Your task to perform on an android device: Go to calendar. Show me events next week Image 0: 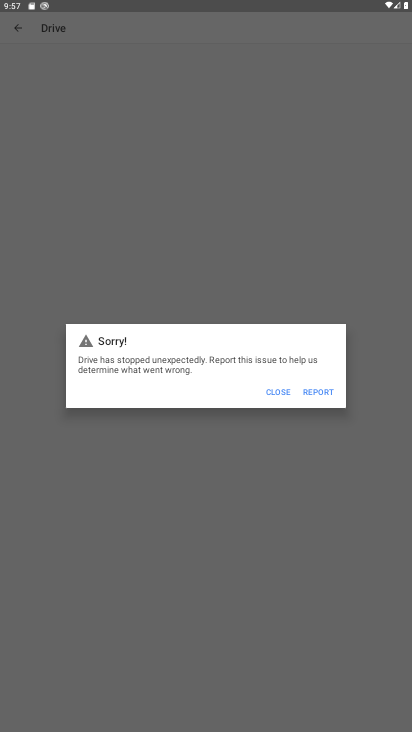
Step 0: press home button
Your task to perform on an android device: Go to calendar. Show me events next week Image 1: 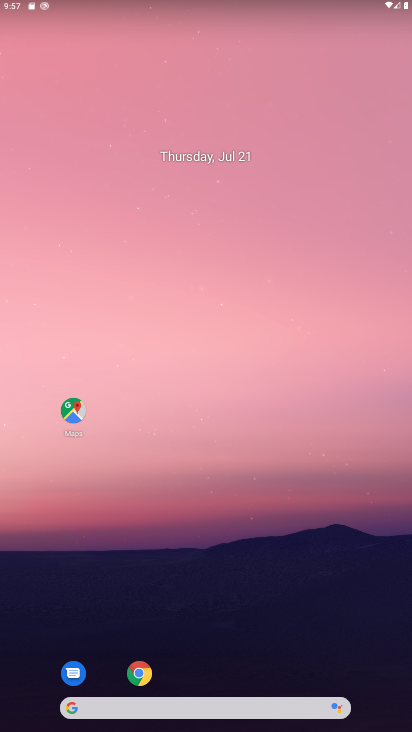
Step 1: drag from (207, 671) to (219, 38)
Your task to perform on an android device: Go to calendar. Show me events next week Image 2: 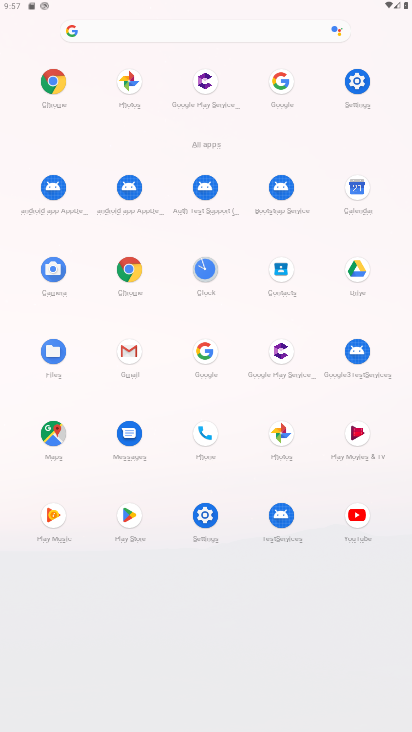
Step 2: click (351, 191)
Your task to perform on an android device: Go to calendar. Show me events next week Image 3: 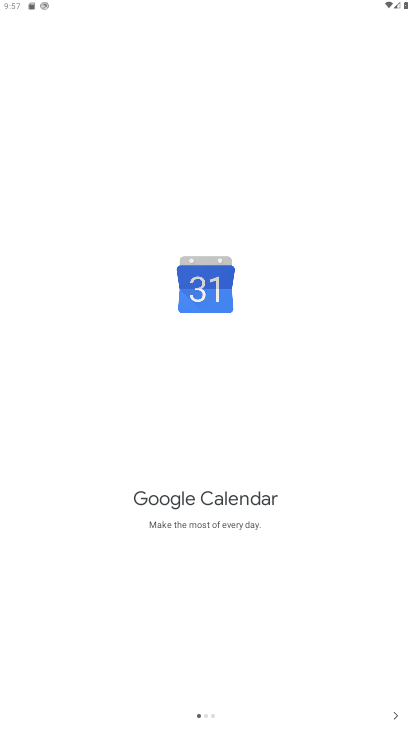
Step 3: click (389, 715)
Your task to perform on an android device: Go to calendar. Show me events next week Image 4: 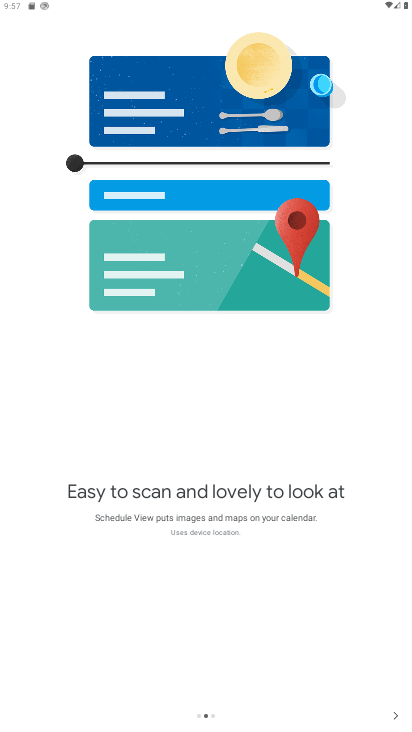
Step 4: click (391, 717)
Your task to perform on an android device: Go to calendar. Show me events next week Image 5: 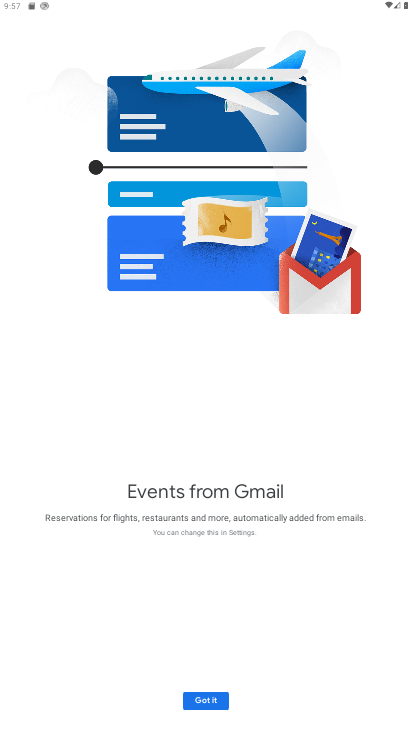
Step 5: click (218, 697)
Your task to perform on an android device: Go to calendar. Show me events next week Image 6: 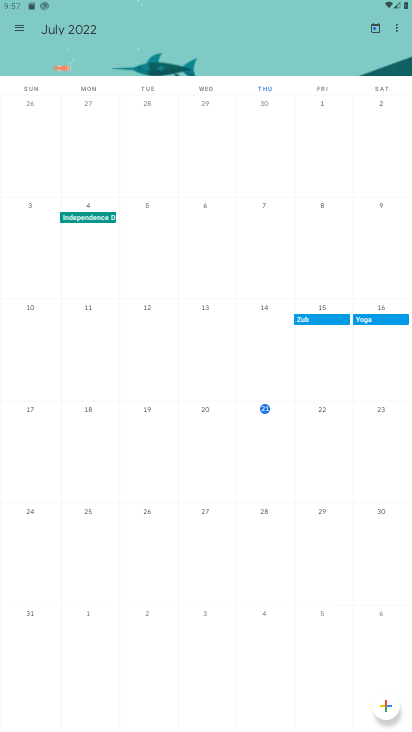
Step 6: click (96, 517)
Your task to perform on an android device: Go to calendar. Show me events next week Image 7: 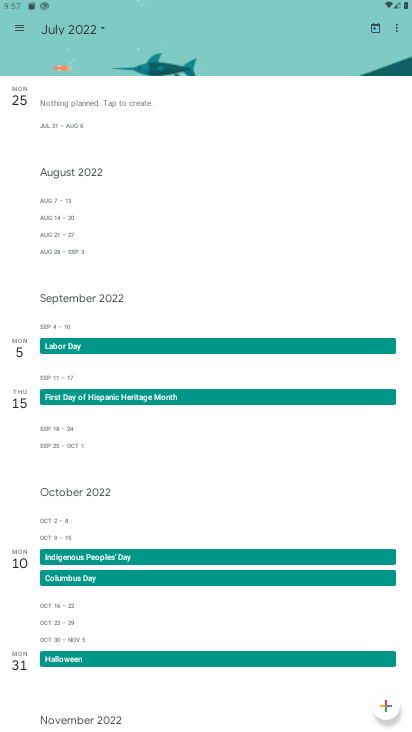
Step 7: task complete